Your task to perform on an android device: Open network settings Image 0: 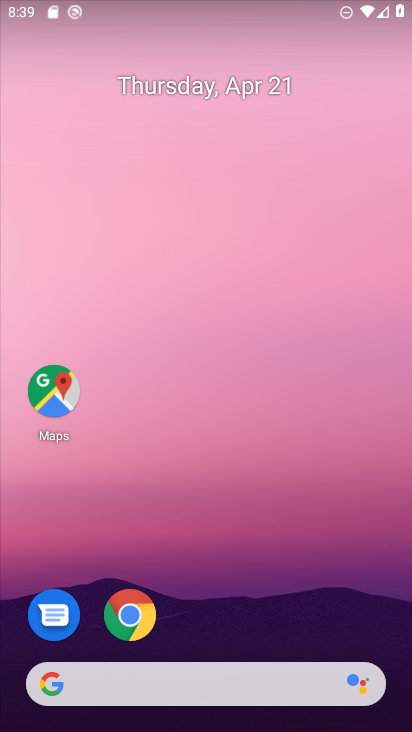
Step 0: drag from (267, 598) to (310, 22)
Your task to perform on an android device: Open network settings Image 1: 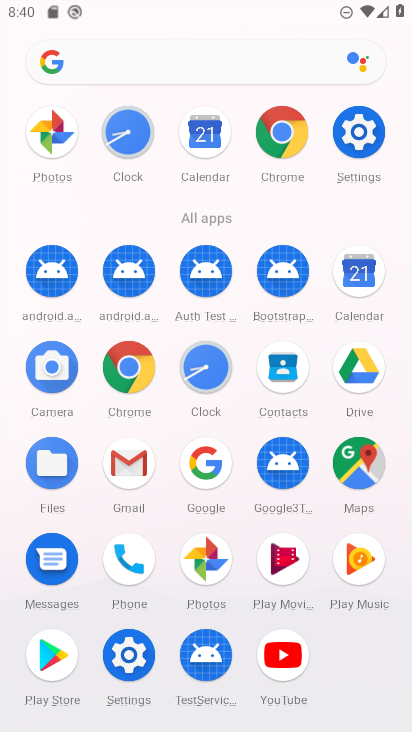
Step 1: click (355, 144)
Your task to perform on an android device: Open network settings Image 2: 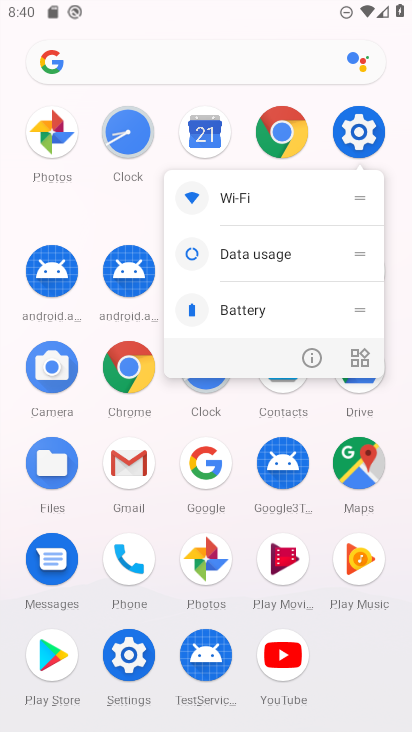
Step 2: click (355, 144)
Your task to perform on an android device: Open network settings Image 3: 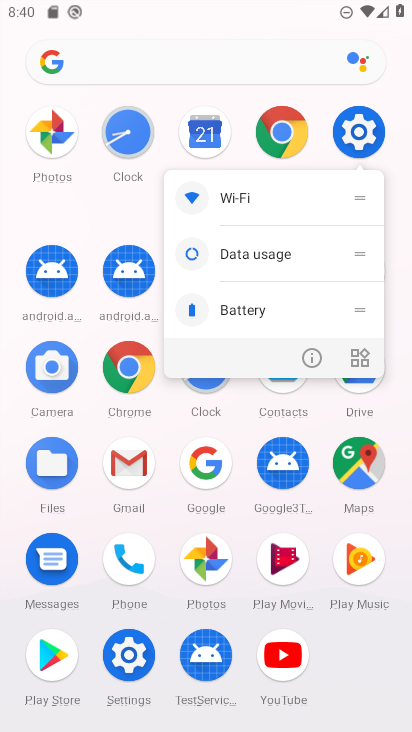
Step 3: click (355, 143)
Your task to perform on an android device: Open network settings Image 4: 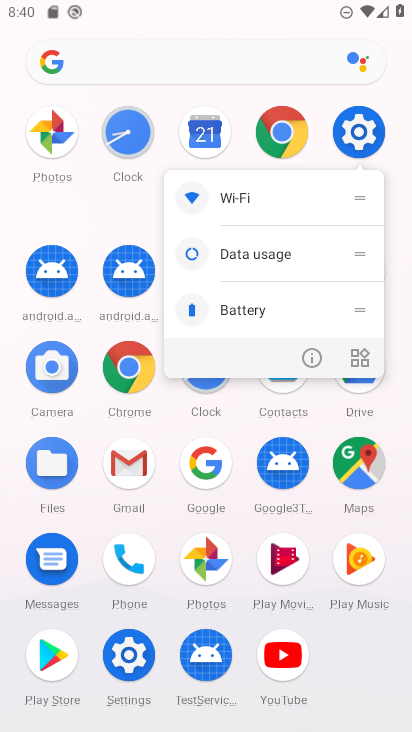
Step 4: click (355, 142)
Your task to perform on an android device: Open network settings Image 5: 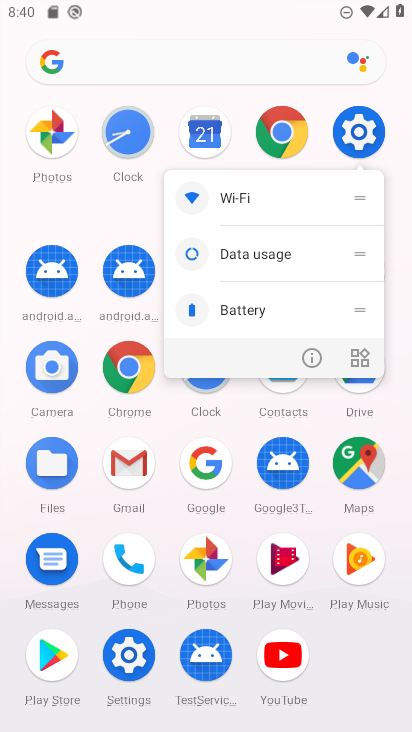
Step 5: click (355, 142)
Your task to perform on an android device: Open network settings Image 6: 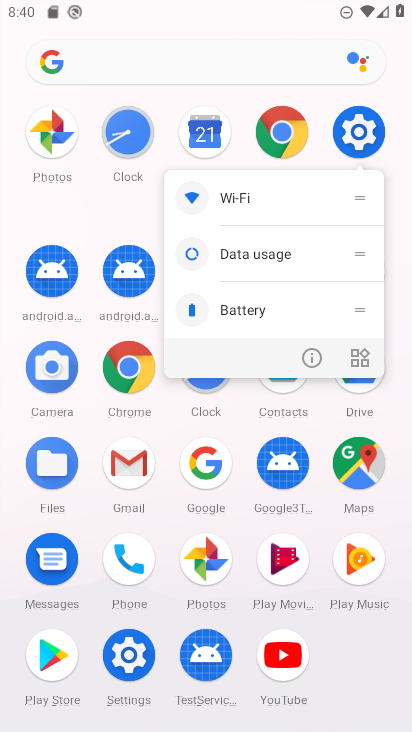
Step 6: click (355, 141)
Your task to perform on an android device: Open network settings Image 7: 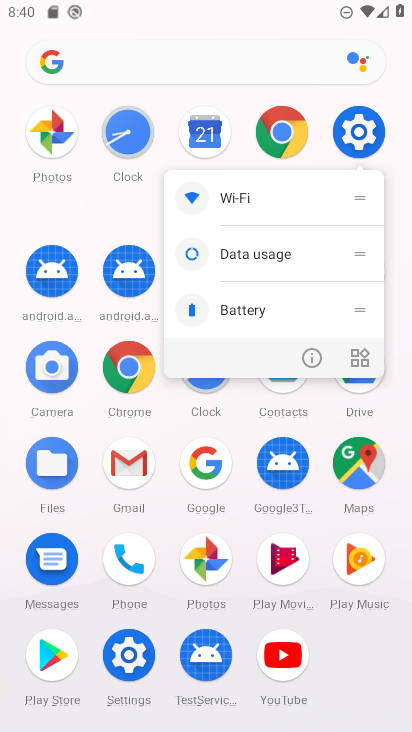
Step 7: click (355, 141)
Your task to perform on an android device: Open network settings Image 8: 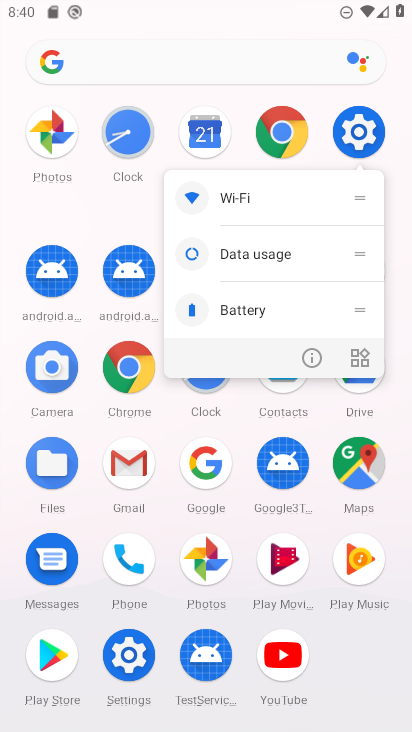
Step 8: click (355, 140)
Your task to perform on an android device: Open network settings Image 9: 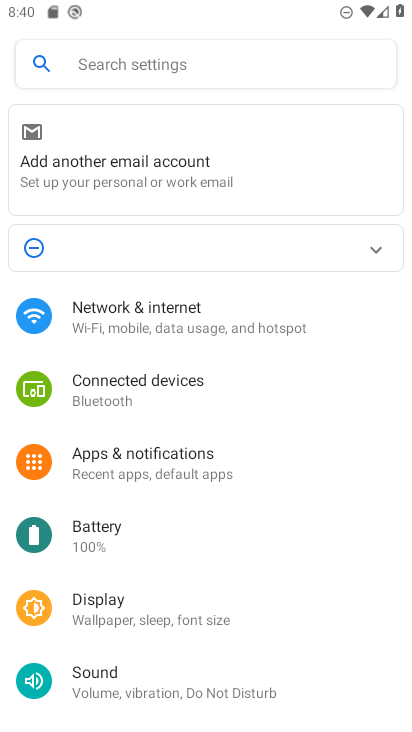
Step 9: click (92, 339)
Your task to perform on an android device: Open network settings Image 10: 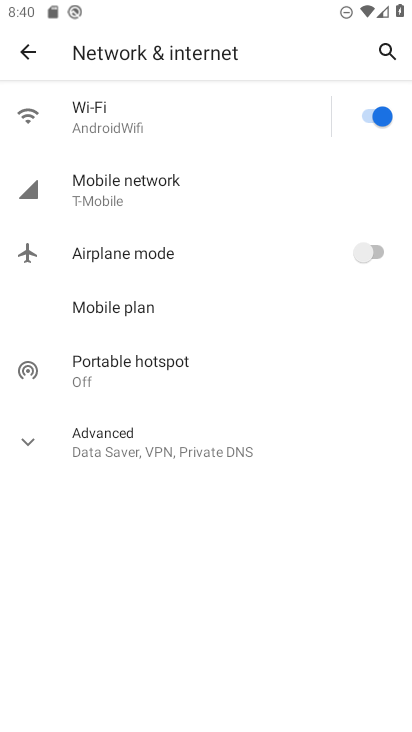
Step 10: click (109, 197)
Your task to perform on an android device: Open network settings Image 11: 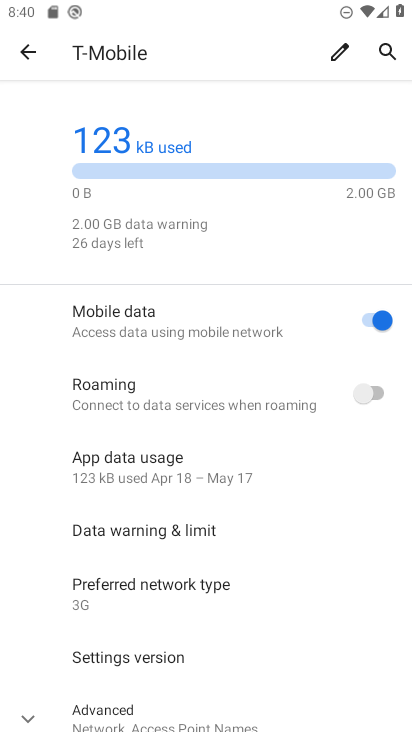
Step 11: task complete